Your task to perform on an android device: Check the weather Image 0: 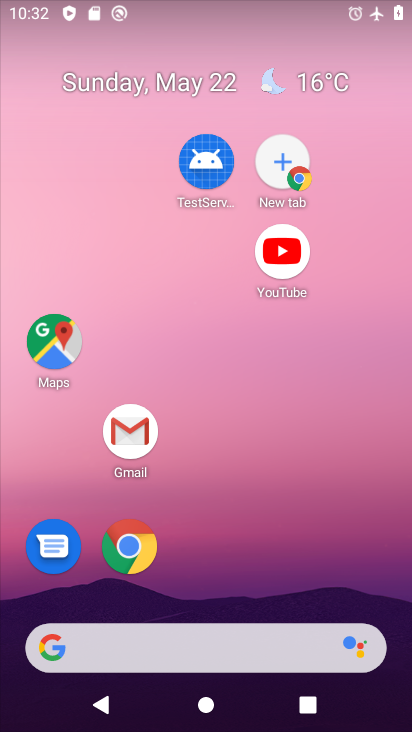
Step 0: drag from (16, 187) to (390, 486)
Your task to perform on an android device: Check the weather Image 1: 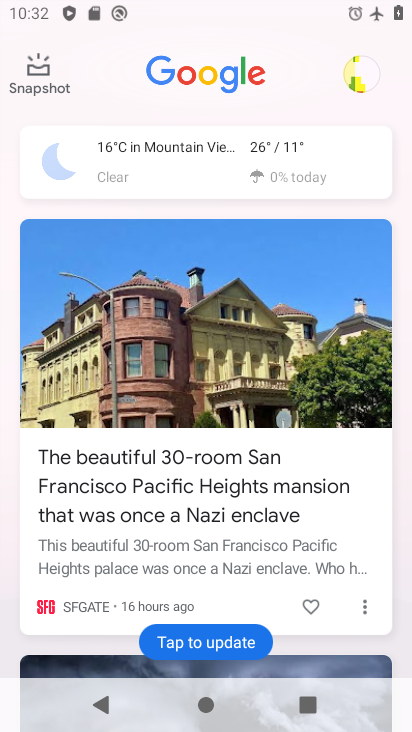
Step 1: click (175, 156)
Your task to perform on an android device: Check the weather Image 2: 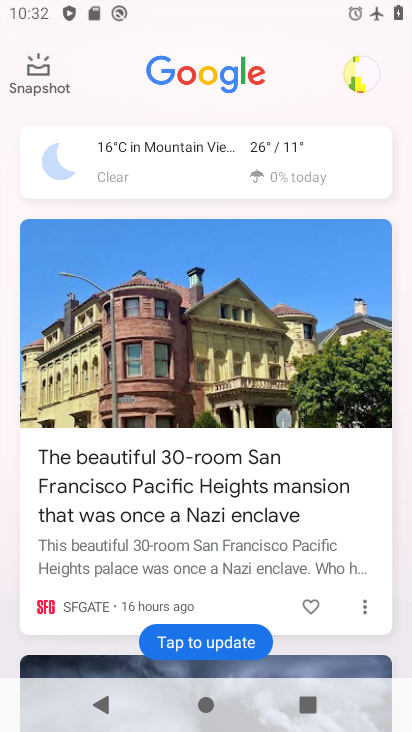
Step 2: click (200, 160)
Your task to perform on an android device: Check the weather Image 3: 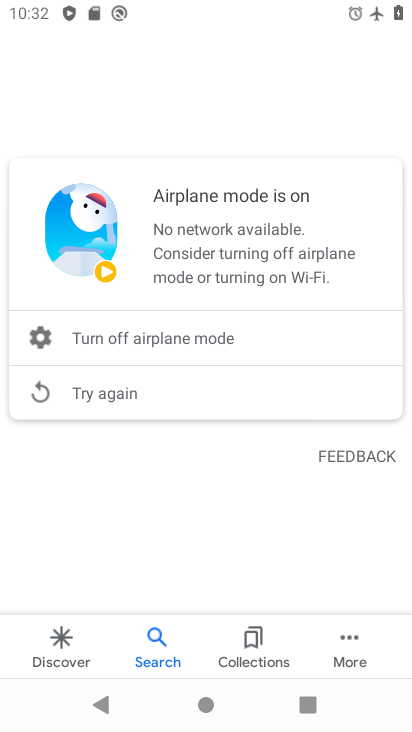
Step 3: task complete